Your task to perform on an android device: install app "VLC for Android" Image 0: 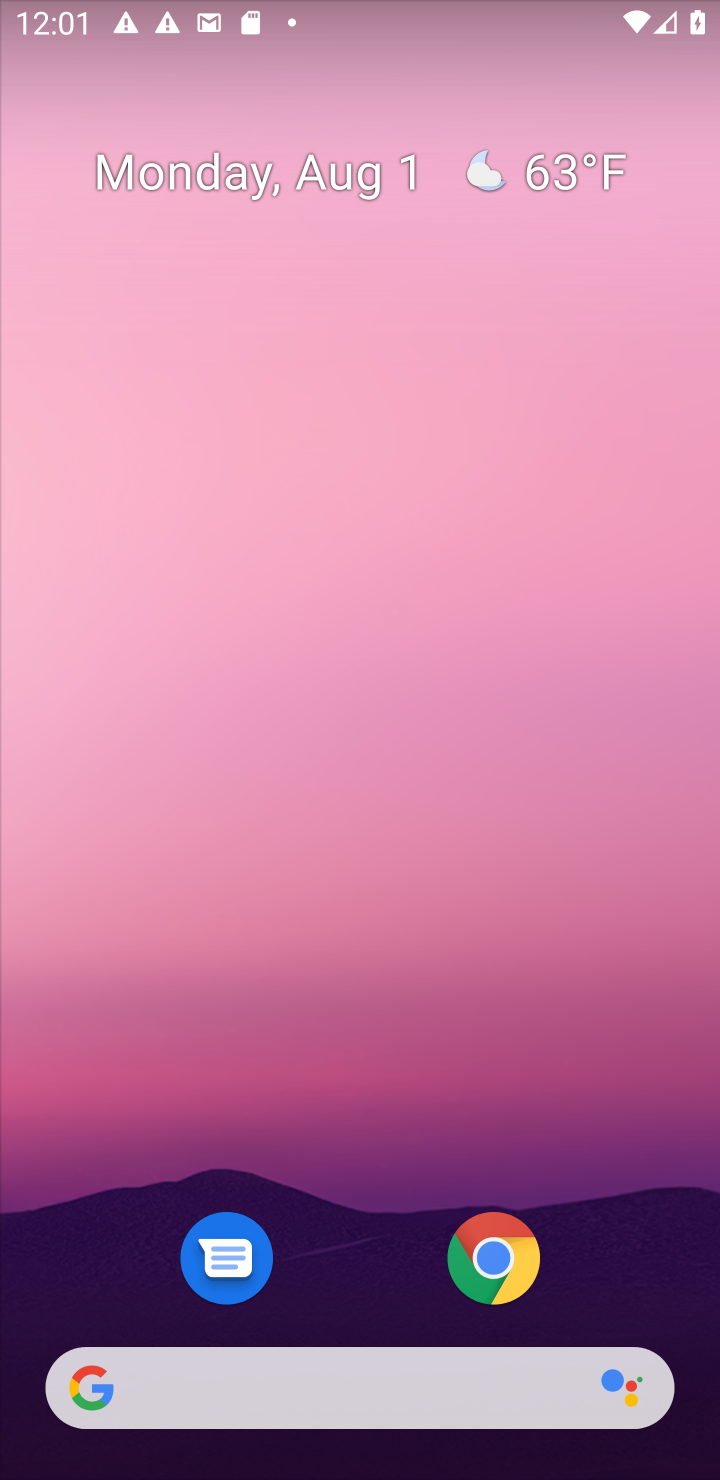
Step 0: drag from (405, 1305) to (405, 201)
Your task to perform on an android device: install app "VLC for Android" Image 1: 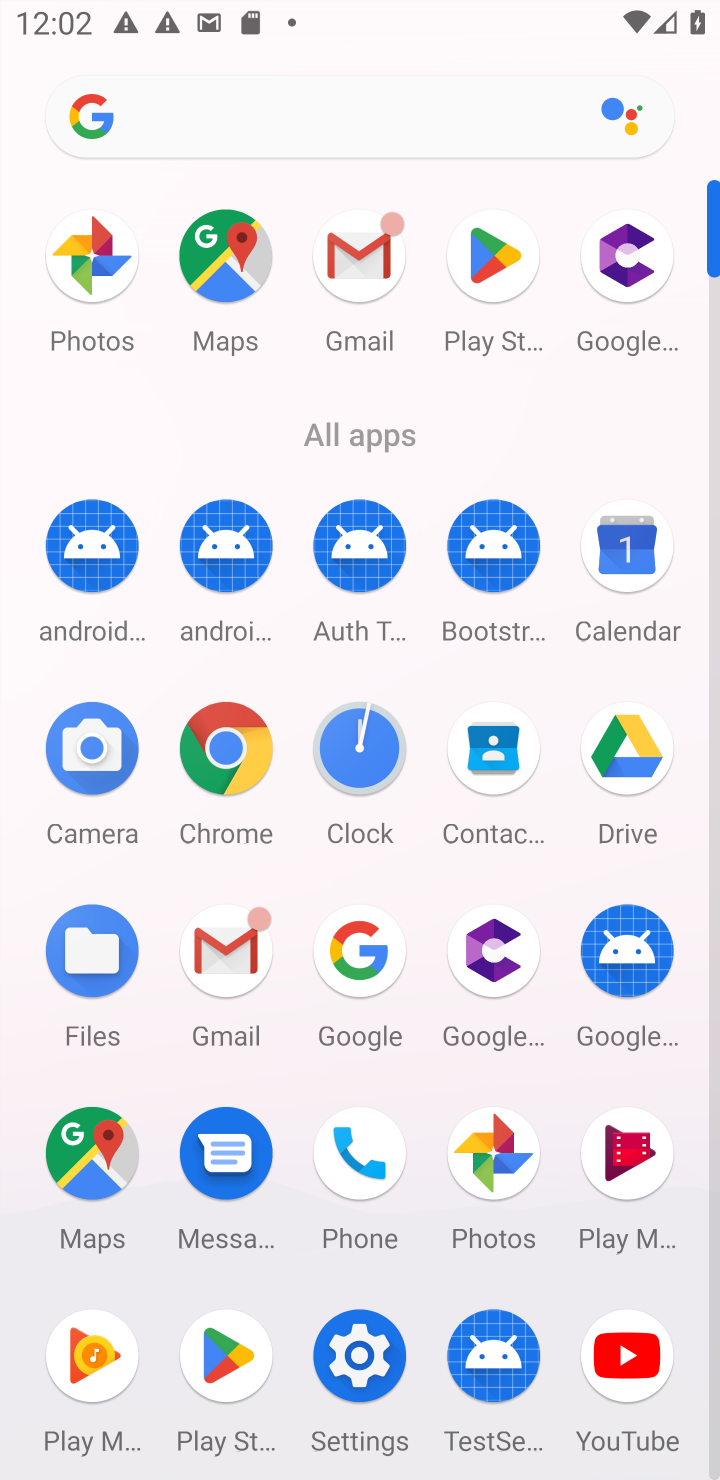
Step 1: click (229, 1395)
Your task to perform on an android device: install app "VLC for Android" Image 2: 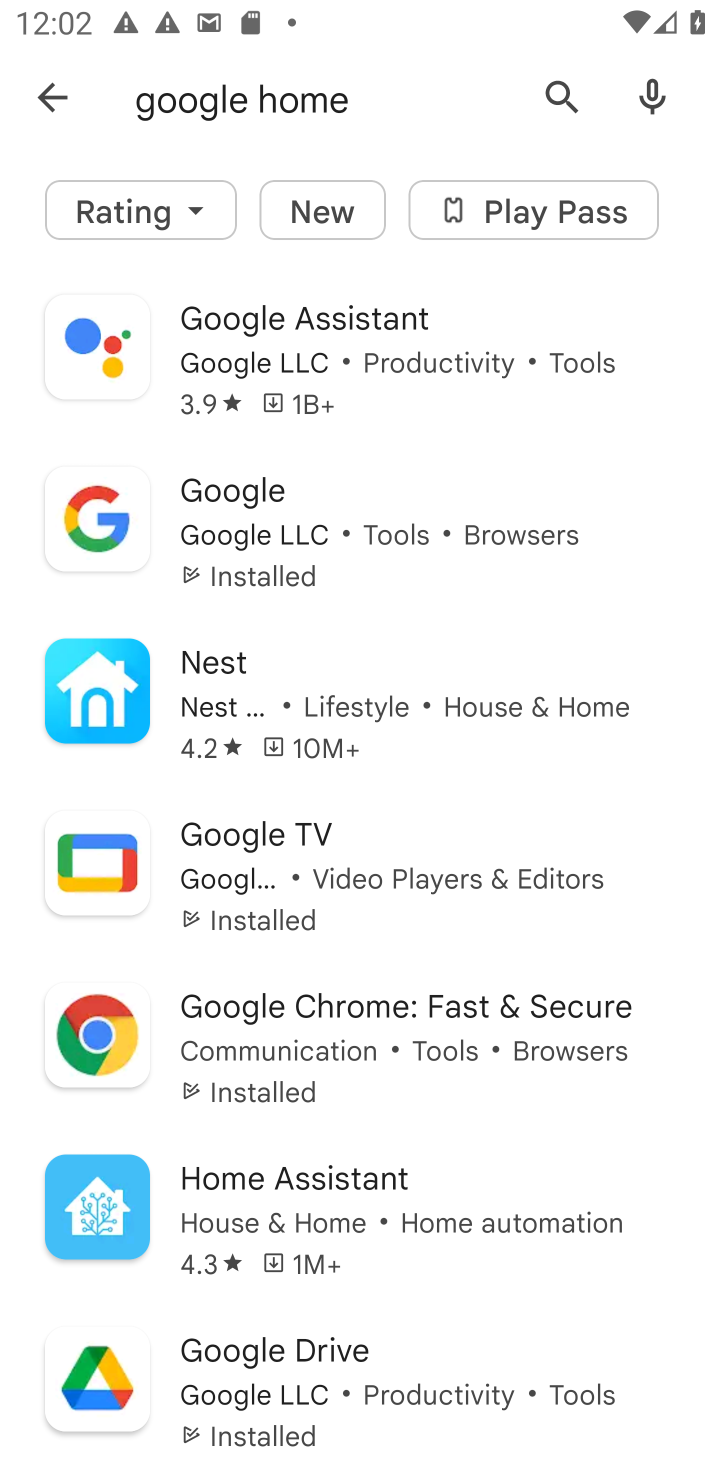
Step 2: click (236, 1344)
Your task to perform on an android device: install app "VLC for Android" Image 3: 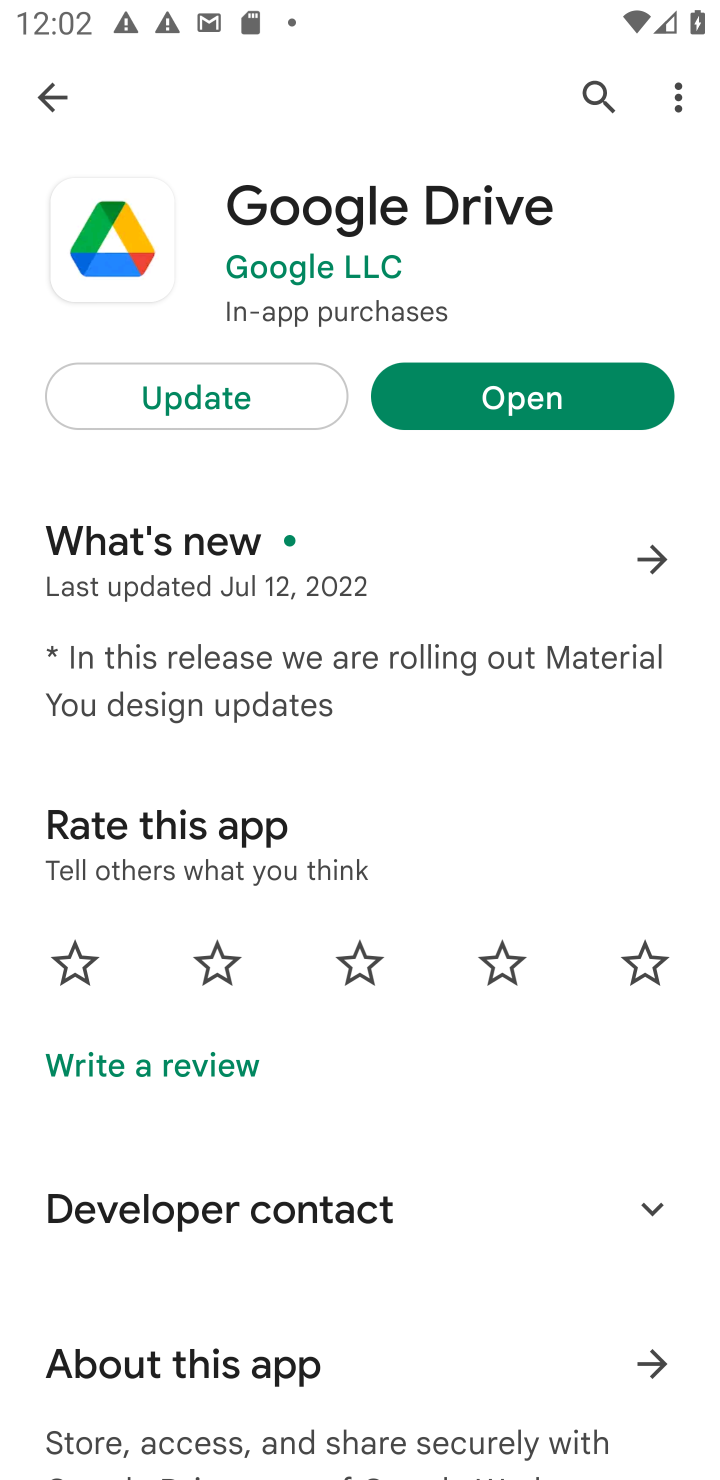
Step 3: click (56, 92)
Your task to perform on an android device: install app "VLC for Android" Image 4: 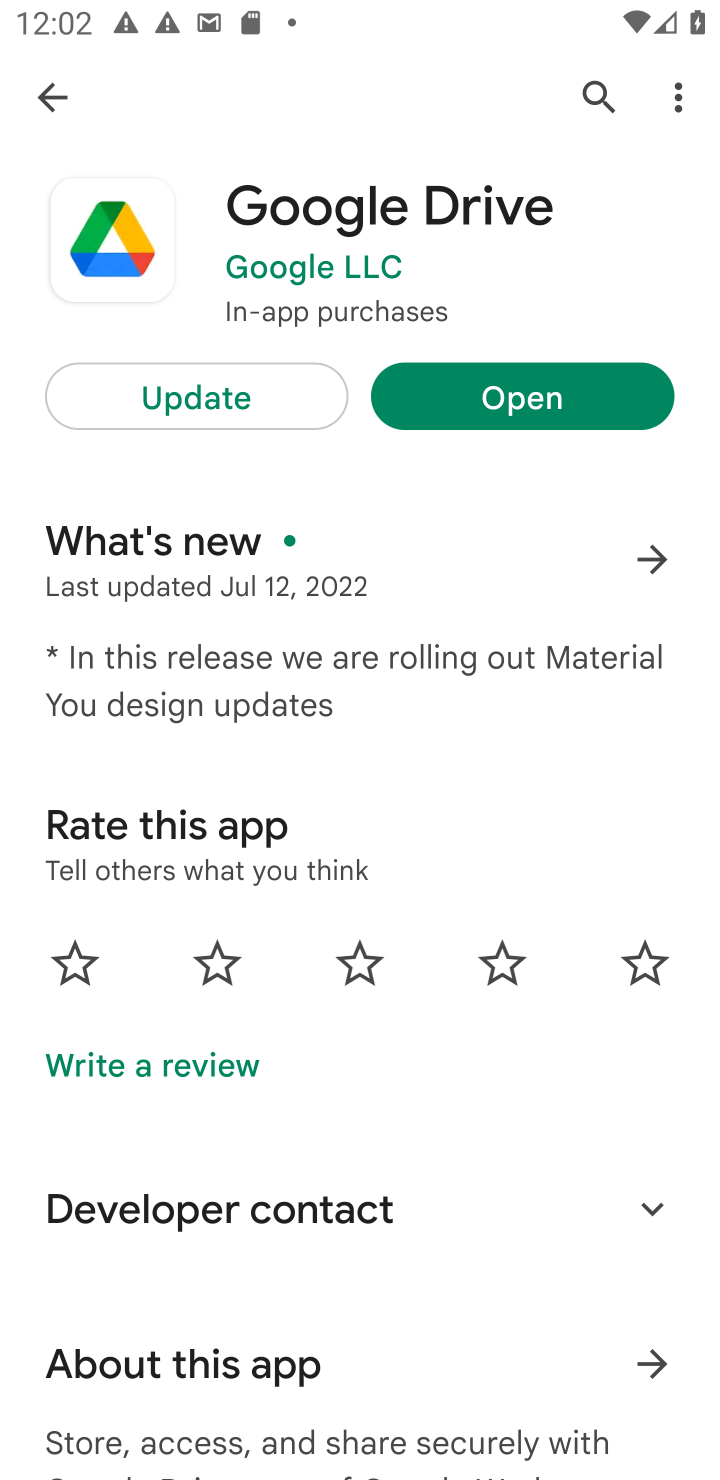
Step 4: click (51, 92)
Your task to perform on an android device: install app "VLC for Android" Image 5: 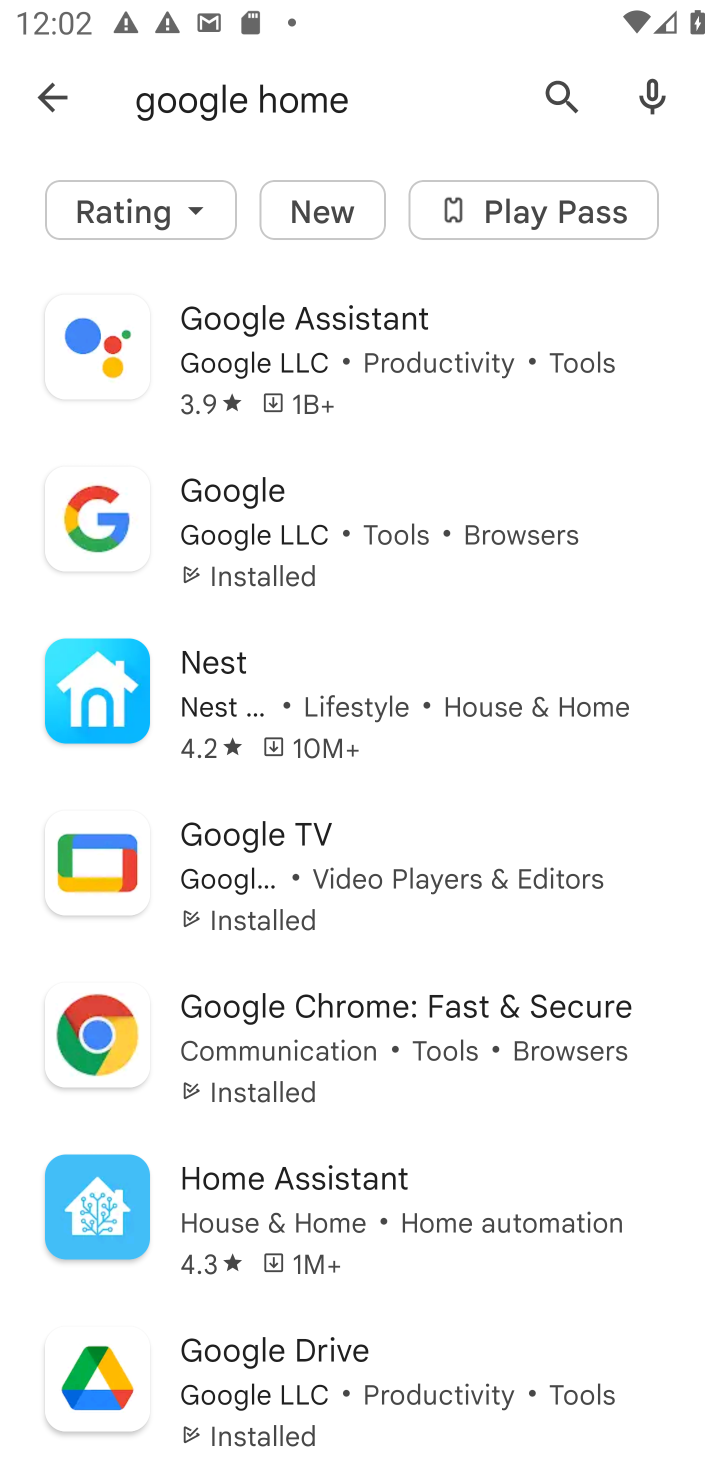
Step 5: click (15, 77)
Your task to perform on an android device: install app "VLC for Android" Image 6: 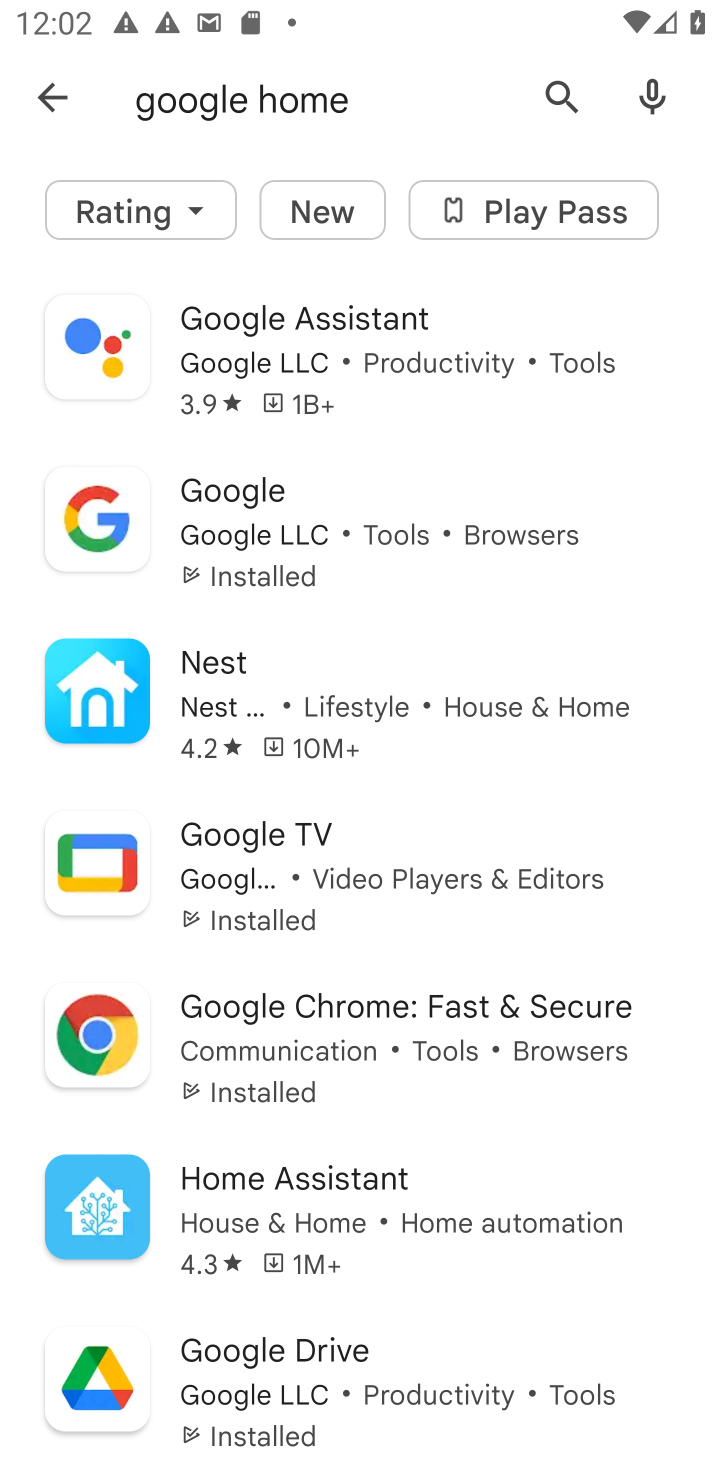
Step 6: click (42, 105)
Your task to perform on an android device: install app "VLC for Android" Image 7: 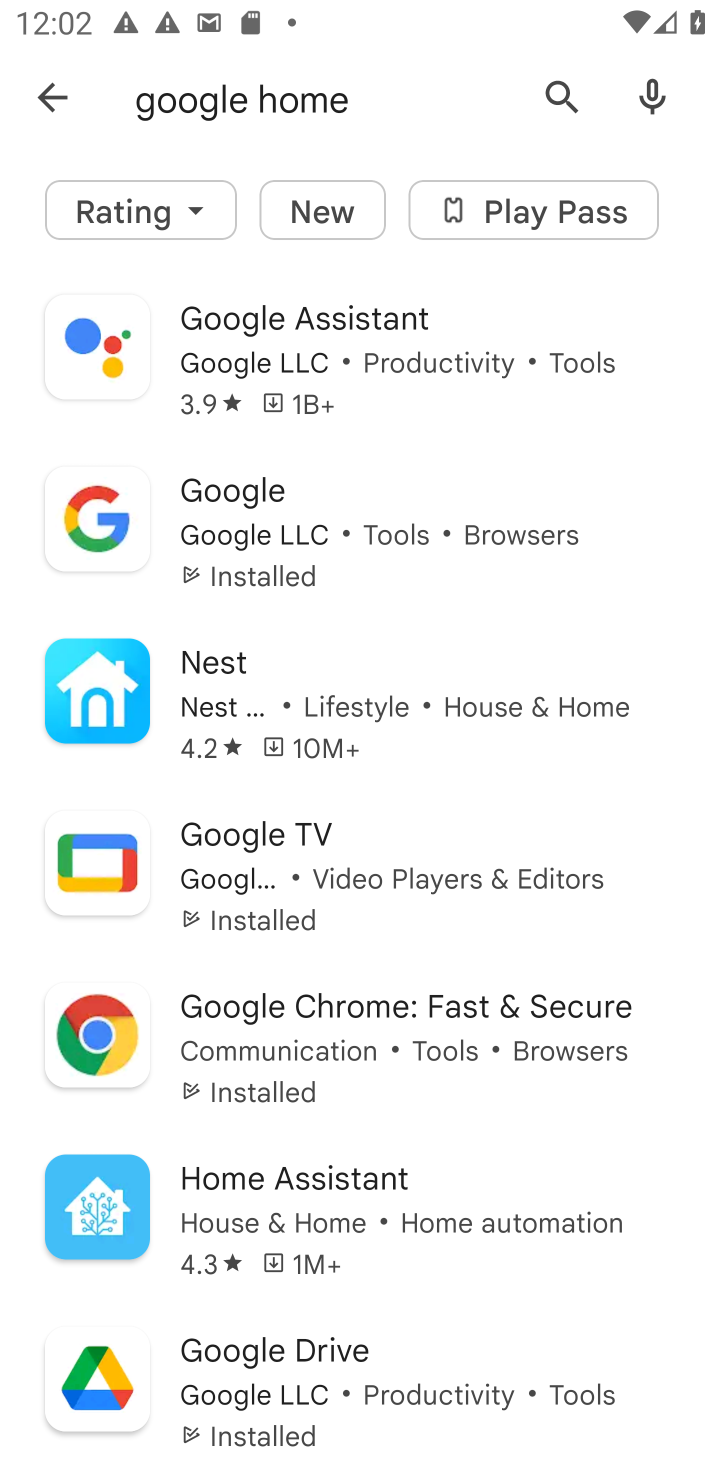
Step 7: click (45, 110)
Your task to perform on an android device: install app "VLC for Android" Image 8: 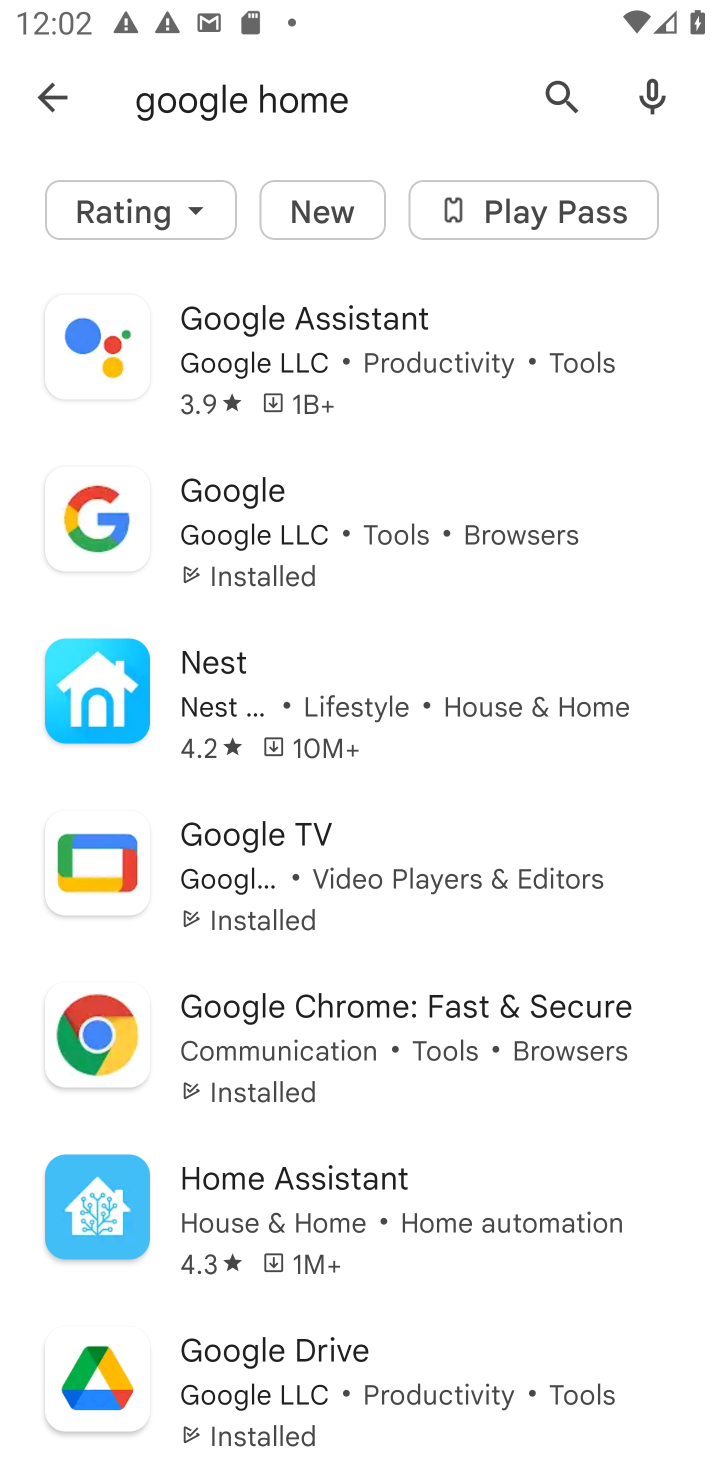
Step 8: click (558, 89)
Your task to perform on an android device: install app "VLC for Android" Image 9: 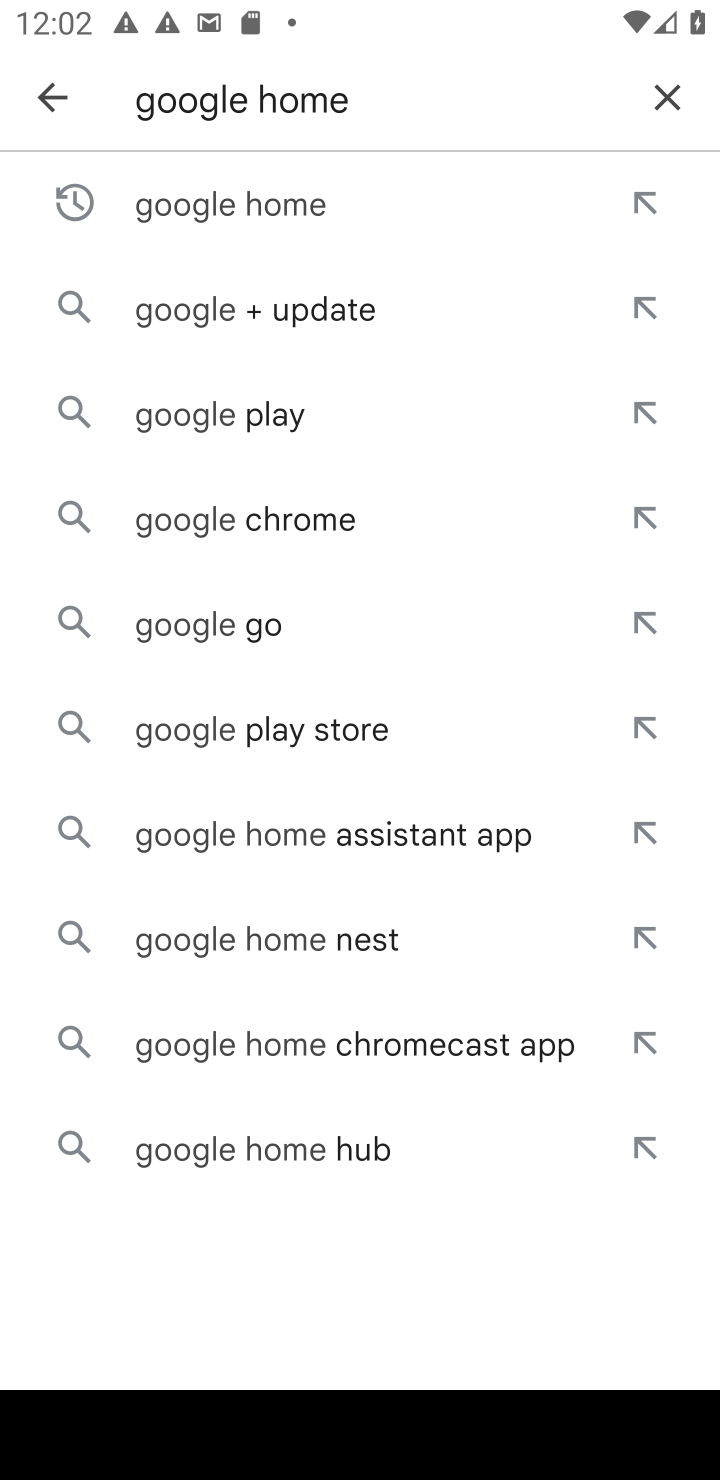
Step 9: click (664, 92)
Your task to perform on an android device: install app "VLC for Android" Image 10: 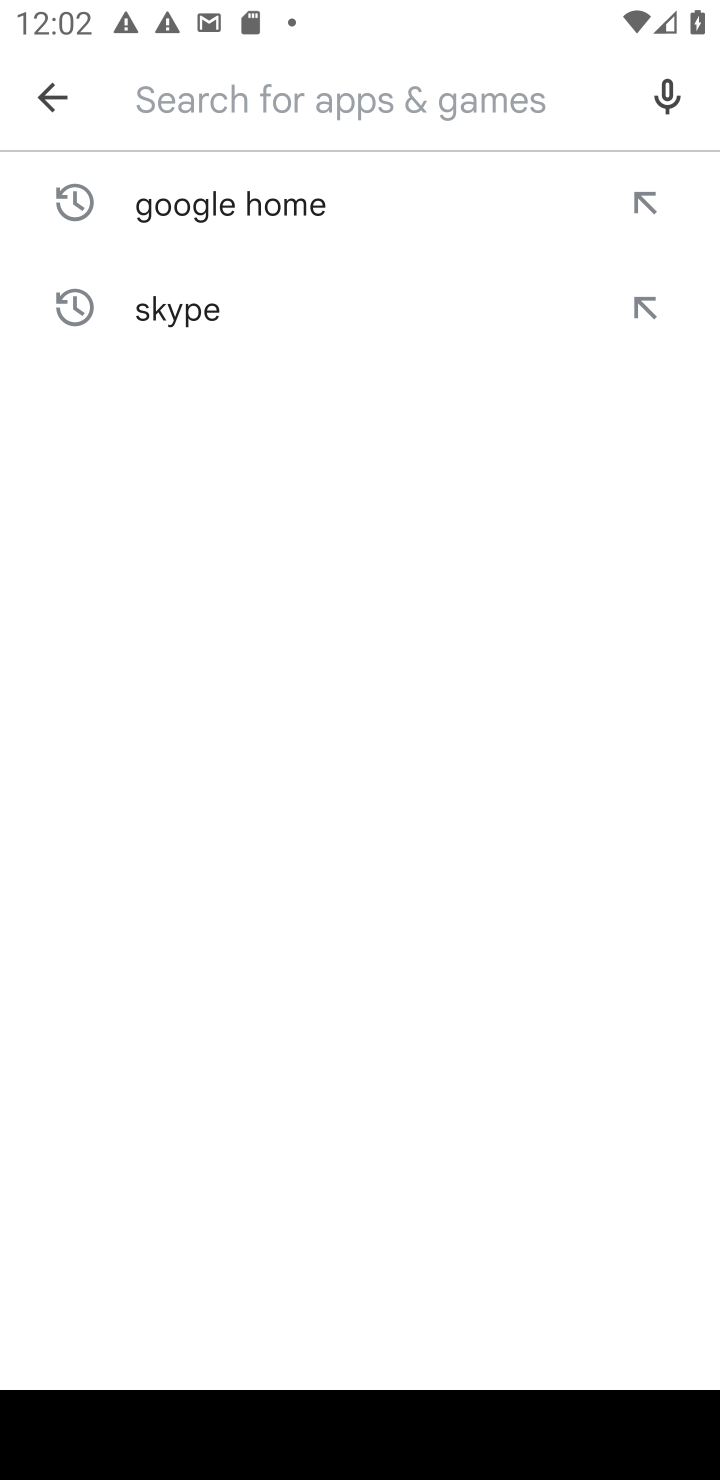
Step 10: type "VLC for Android"
Your task to perform on an android device: install app "VLC for Android" Image 11: 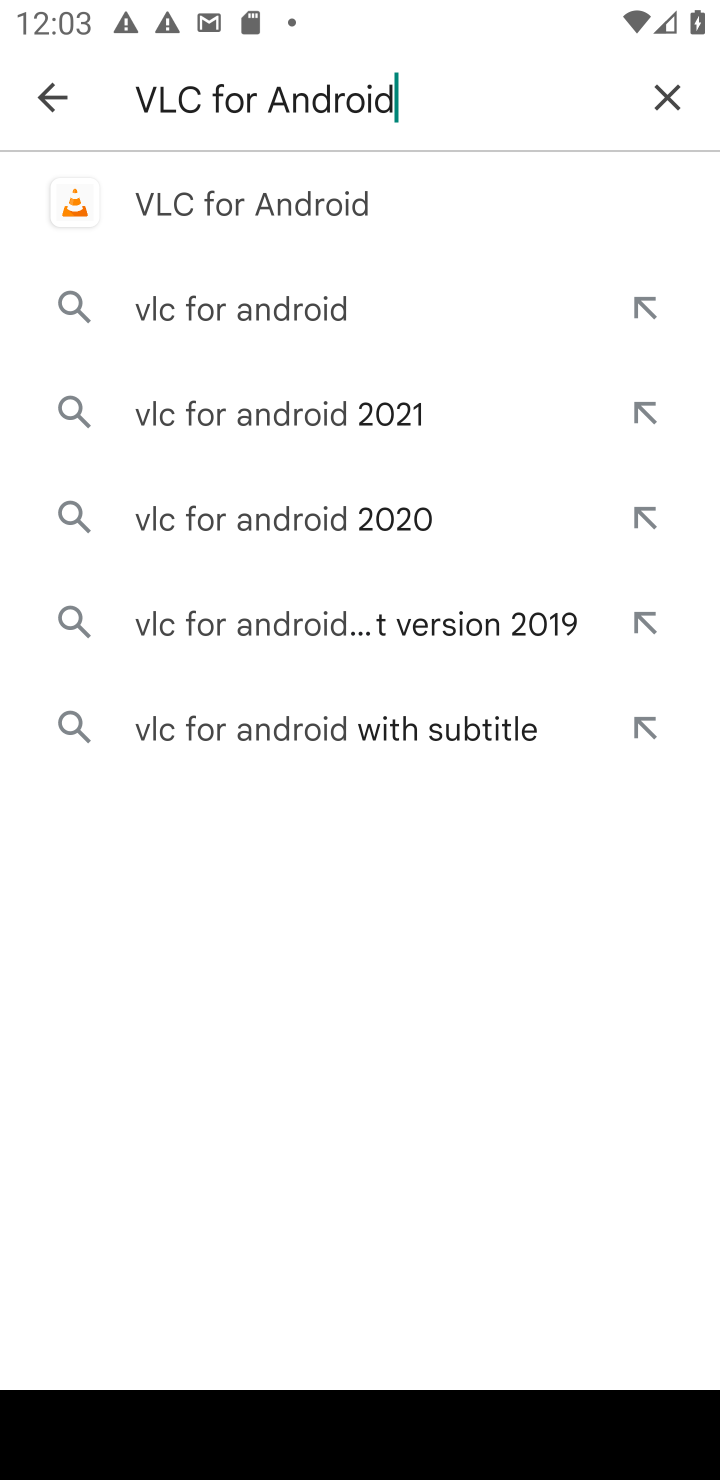
Step 11: click (158, 200)
Your task to perform on an android device: install app "VLC for Android" Image 12: 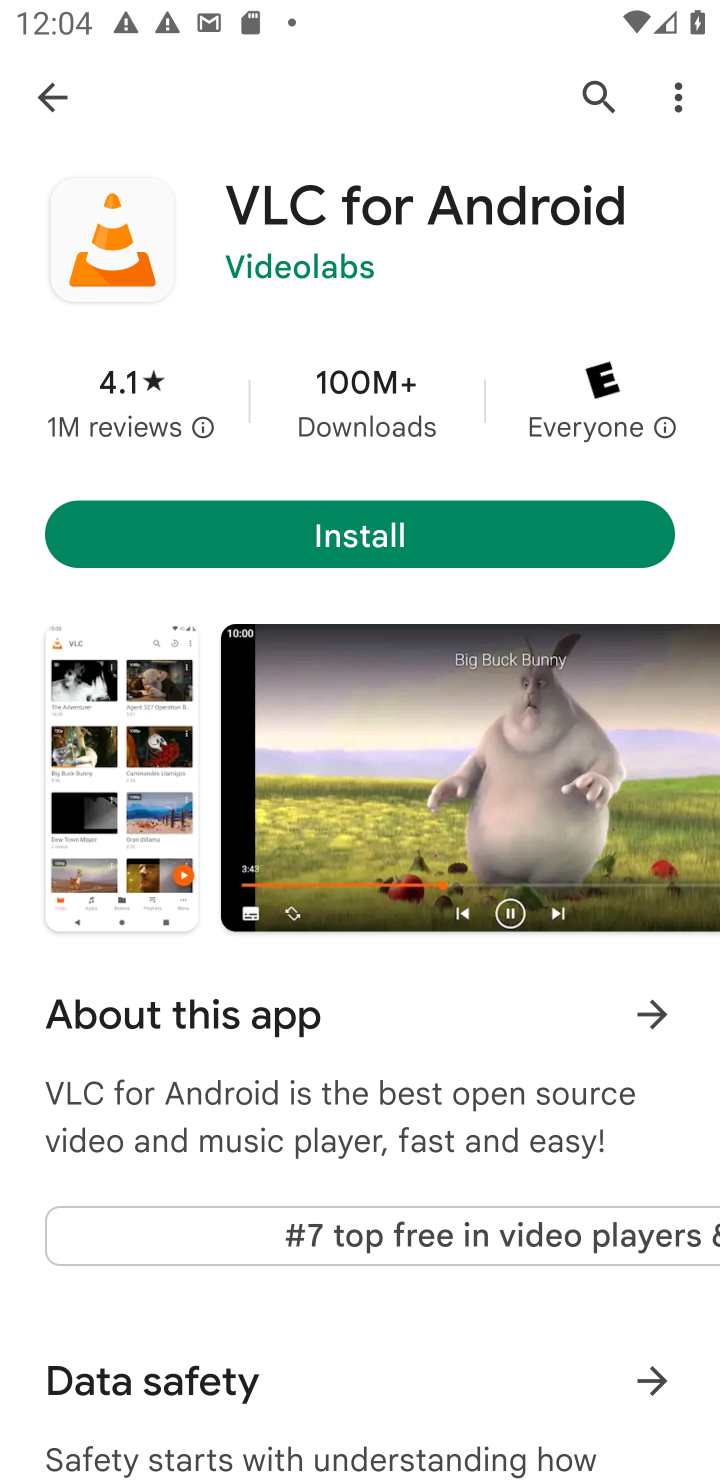
Step 12: click (350, 570)
Your task to perform on an android device: install app "VLC for Android" Image 13: 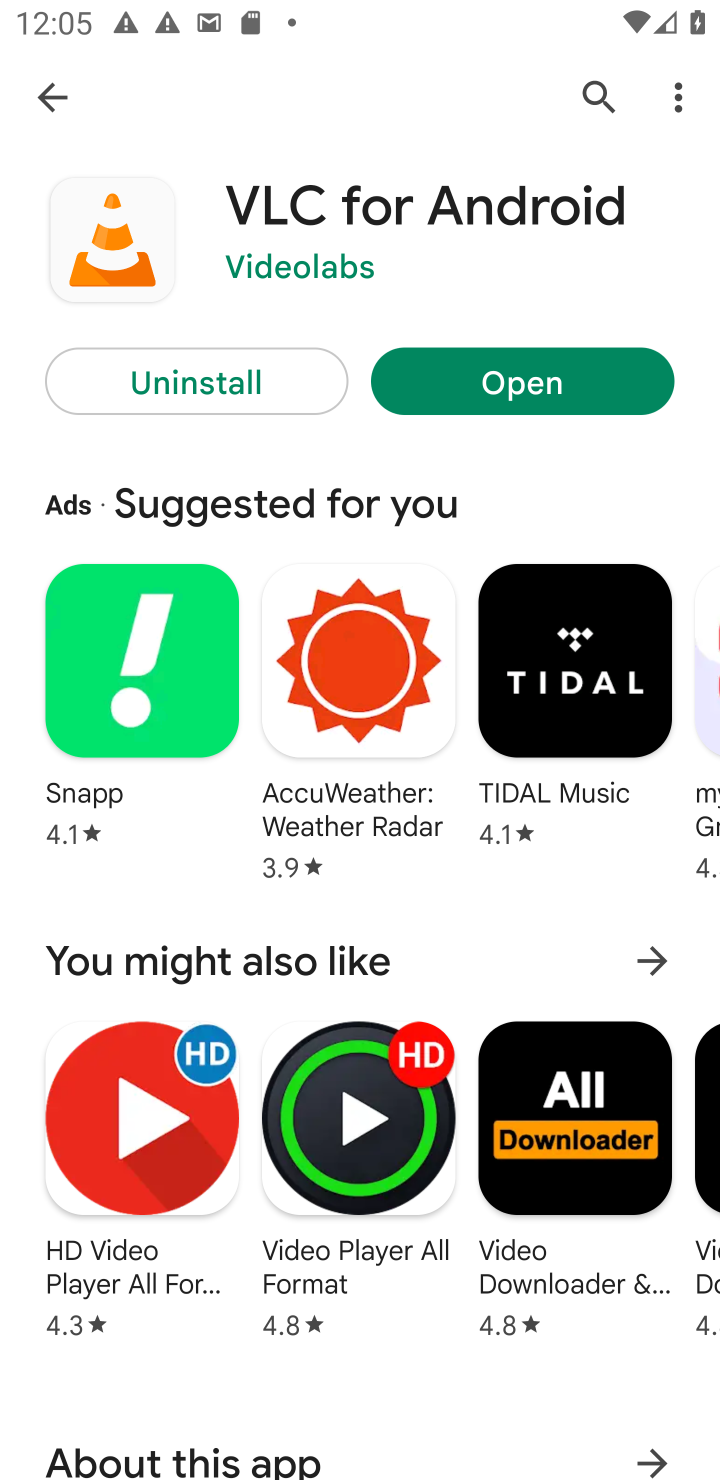
Step 13: task complete